Your task to perform on an android device: Open sound settings Image 0: 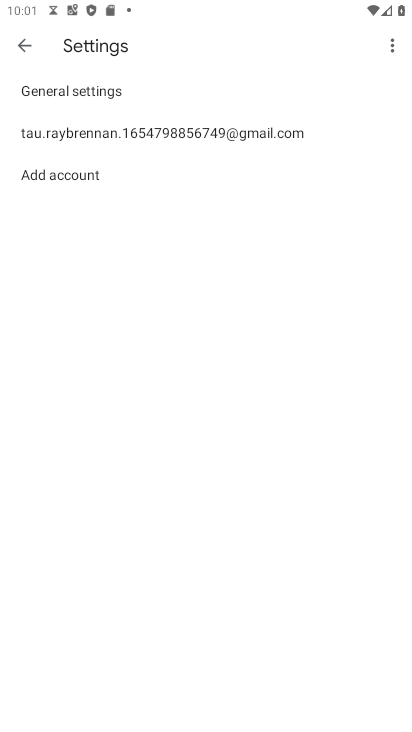
Step 0: press home button
Your task to perform on an android device: Open sound settings Image 1: 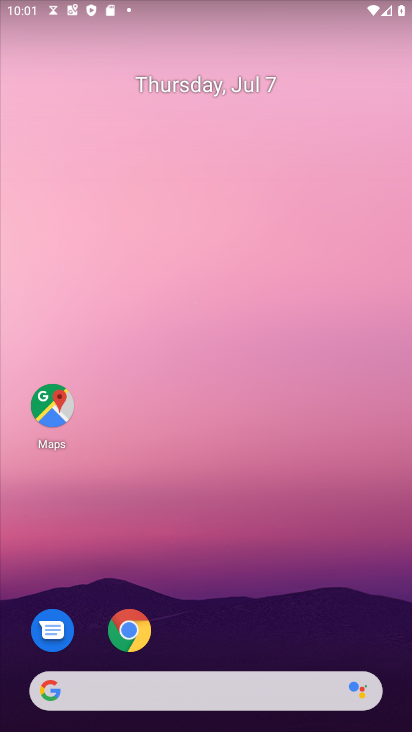
Step 1: drag from (221, 664) to (208, 200)
Your task to perform on an android device: Open sound settings Image 2: 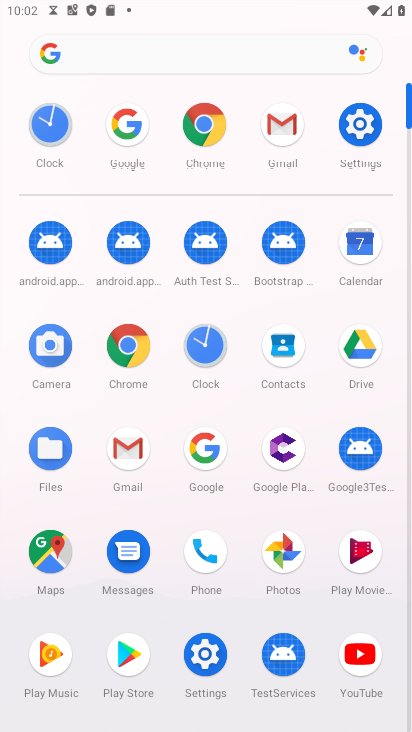
Step 2: click (366, 125)
Your task to perform on an android device: Open sound settings Image 3: 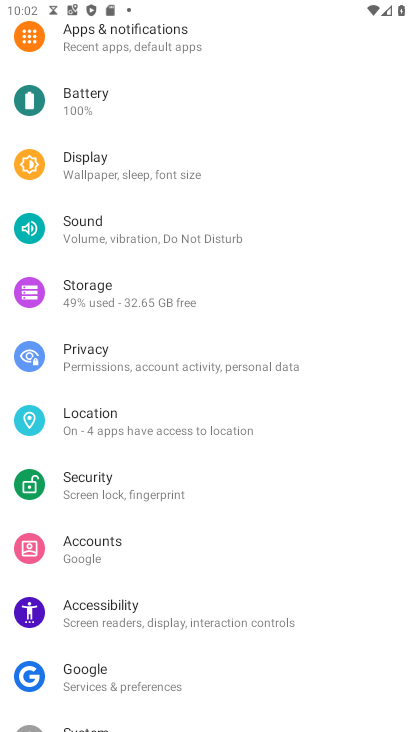
Step 3: click (108, 226)
Your task to perform on an android device: Open sound settings Image 4: 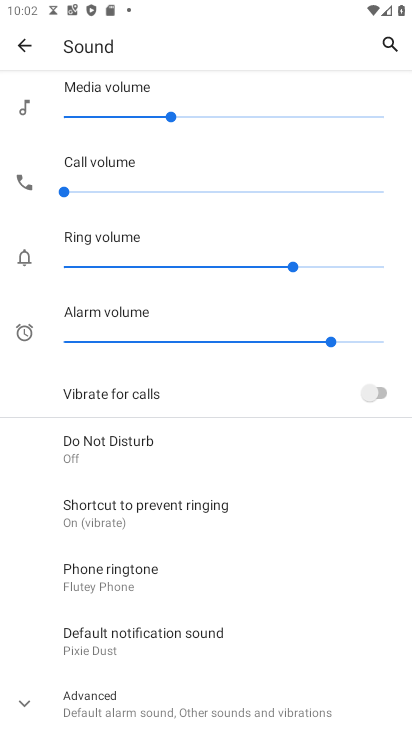
Step 4: drag from (179, 672) to (166, 211)
Your task to perform on an android device: Open sound settings Image 5: 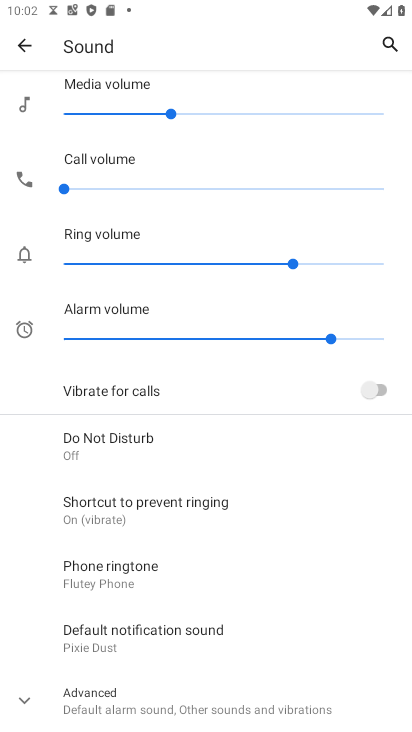
Step 5: click (160, 720)
Your task to perform on an android device: Open sound settings Image 6: 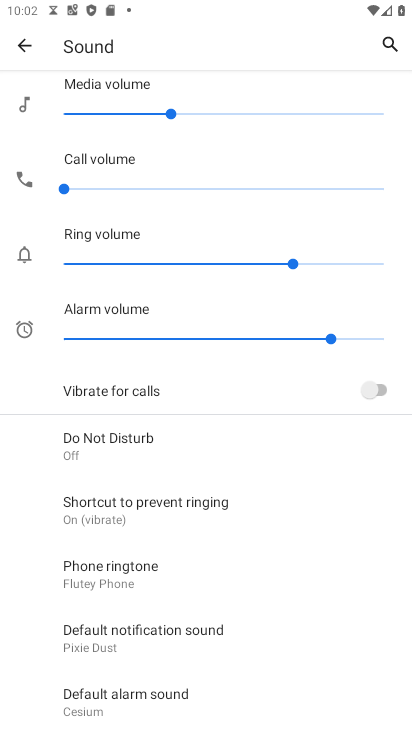
Step 6: task complete